Your task to perform on an android device: open app "Move to iOS" Image 0: 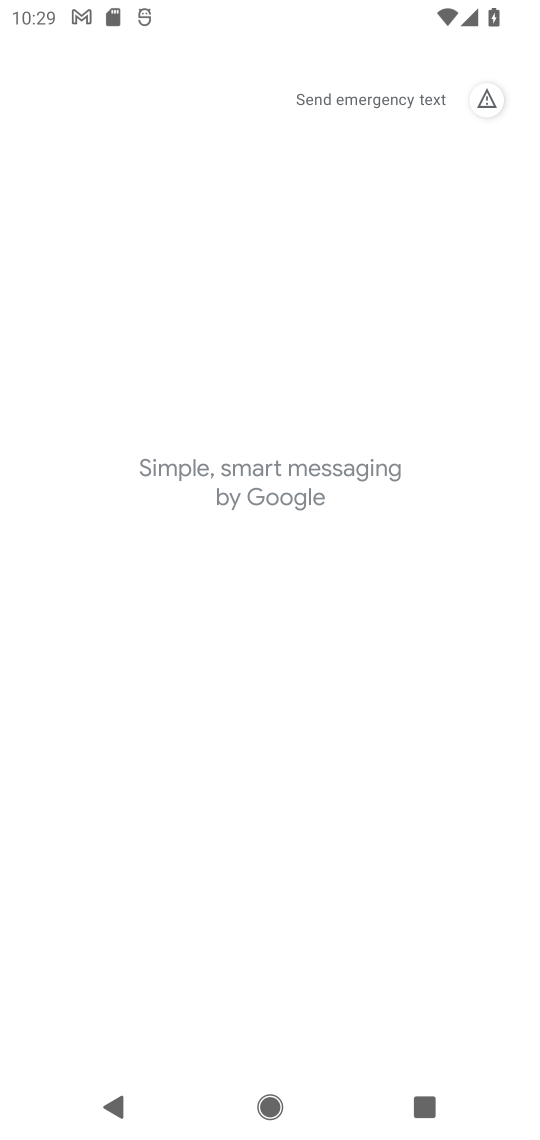
Step 0: press back button
Your task to perform on an android device: open app "Move to iOS" Image 1: 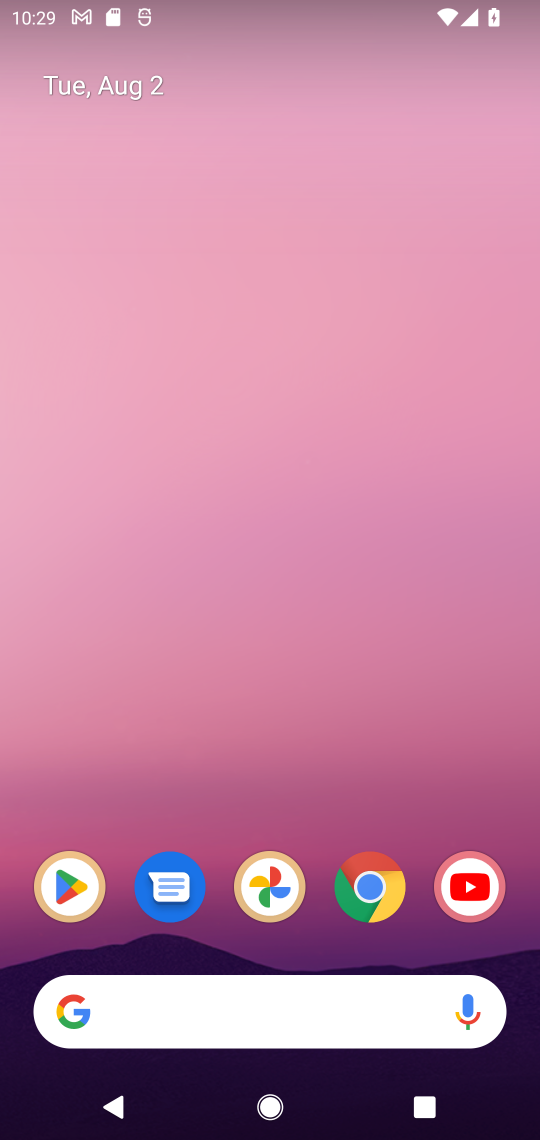
Step 1: drag from (322, 973) to (524, 468)
Your task to perform on an android device: open app "Move to iOS" Image 2: 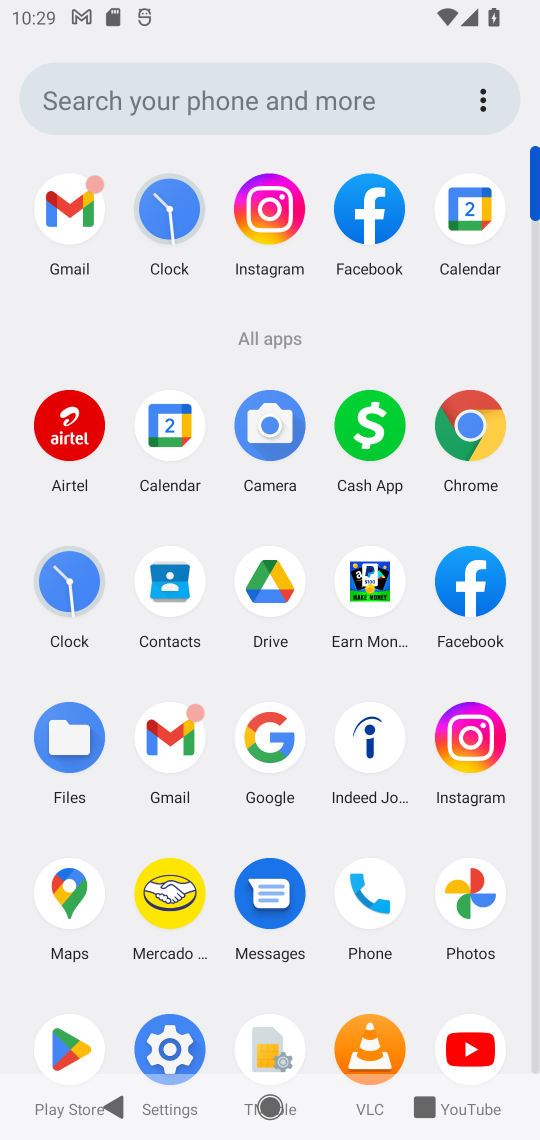
Step 2: click (66, 1022)
Your task to perform on an android device: open app "Move to iOS" Image 3: 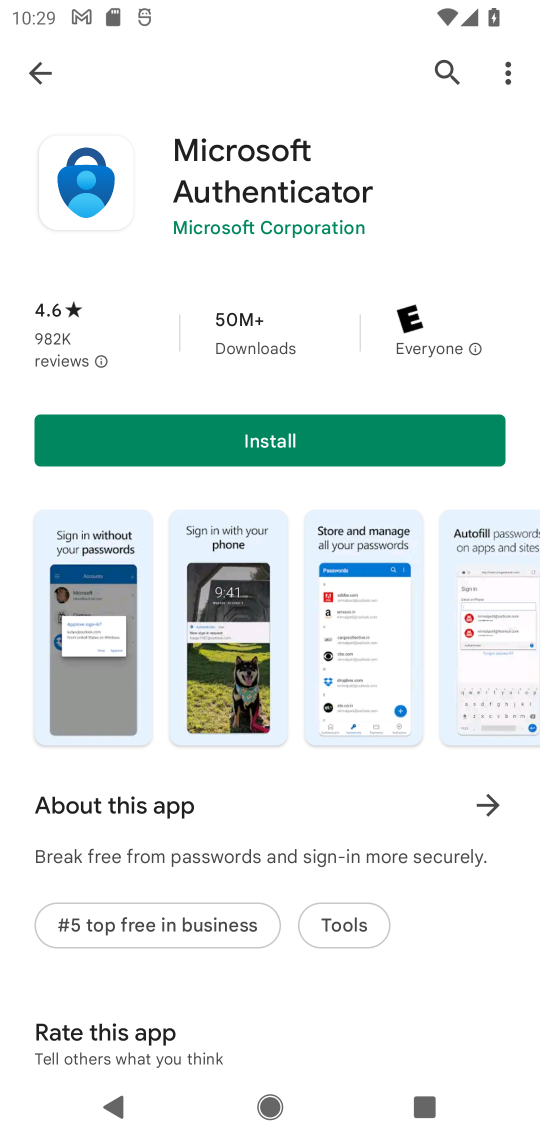
Step 3: click (53, 73)
Your task to perform on an android device: open app "Move to iOS" Image 4: 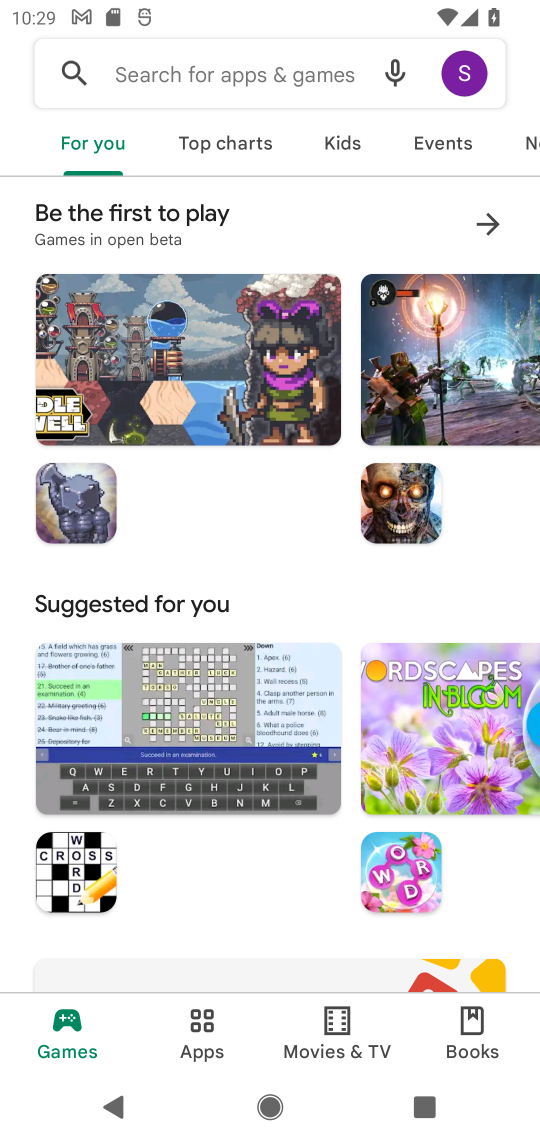
Step 4: click (220, 68)
Your task to perform on an android device: open app "Move to iOS" Image 5: 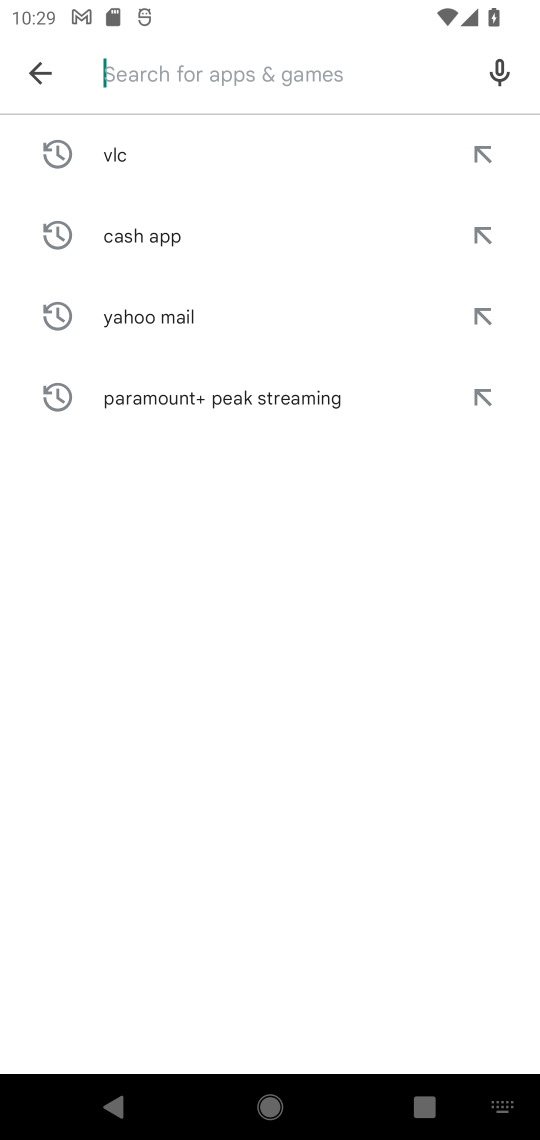
Step 5: type "Move to iOS"
Your task to perform on an android device: open app "Move to iOS" Image 6: 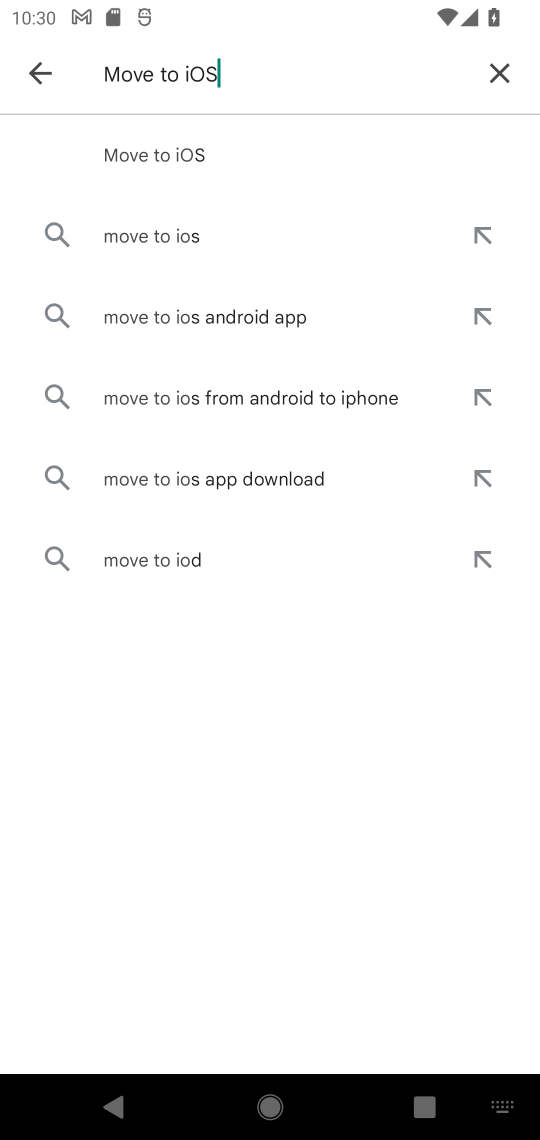
Step 6: type ""
Your task to perform on an android device: open app "Move to iOS" Image 7: 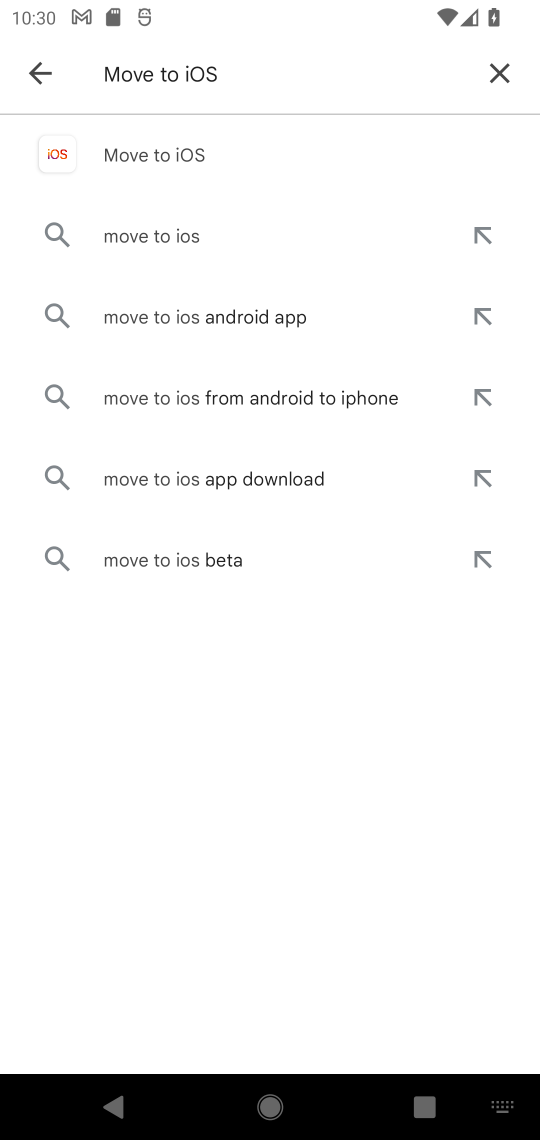
Step 7: click (175, 170)
Your task to perform on an android device: open app "Move to iOS" Image 8: 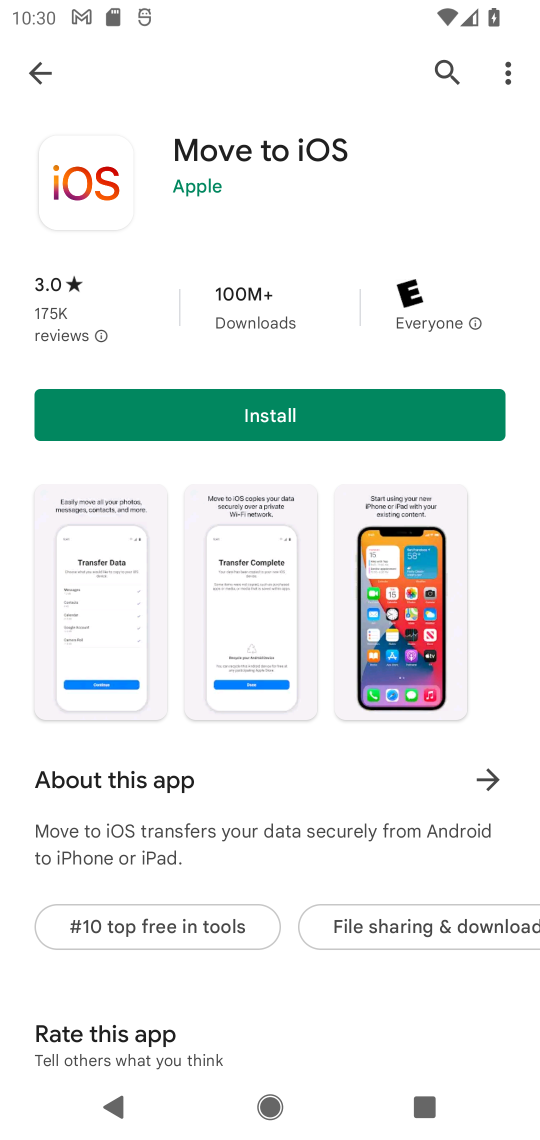
Step 8: task complete